Your task to perform on an android device: Open settings Image 0: 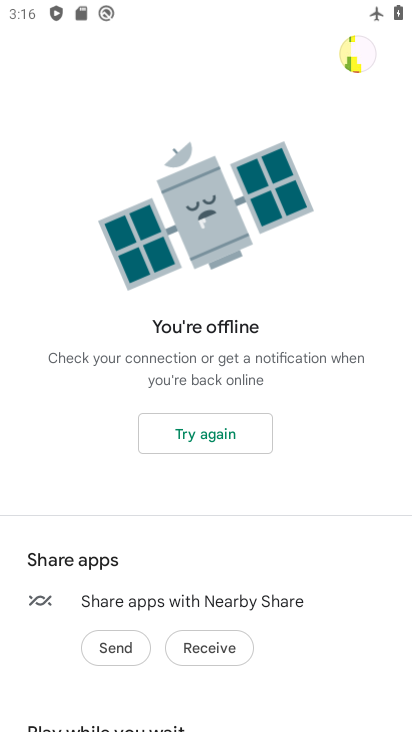
Step 0: press home button
Your task to perform on an android device: Open settings Image 1: 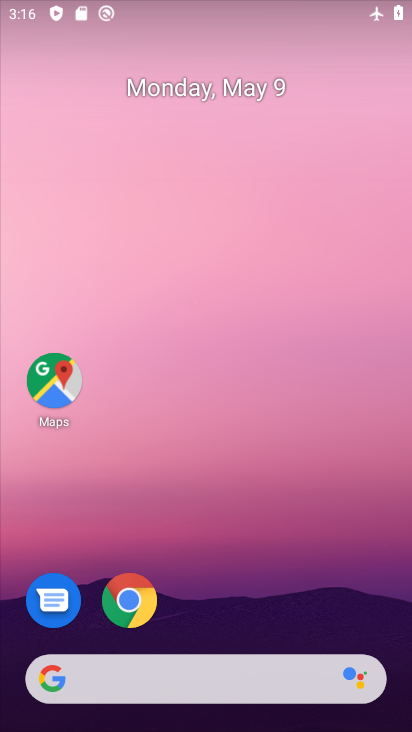
Step 1: drag from (230, 591) to (311, 3)
Your task to perform on an android device: Open settings Image 2: 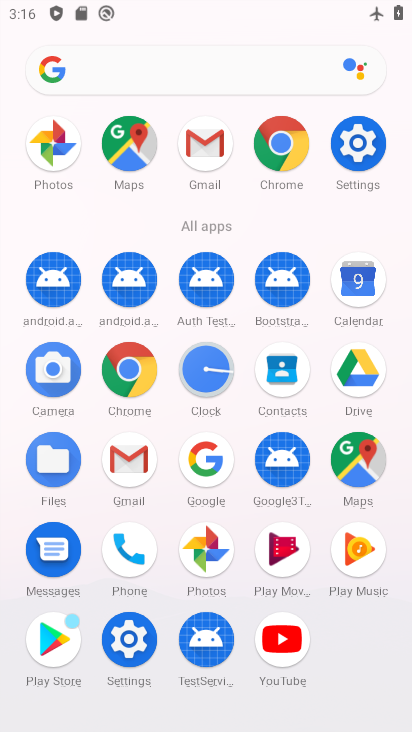
Step 2: click (134, 660)
Your task to perform on an android device: Open settings Image 3: 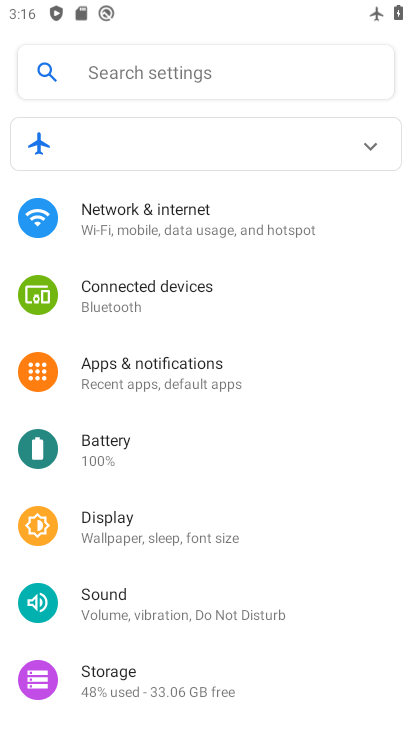
Step 3: task complete